Your task to perform on an android device: see sites visited before in the chrome app Image 0: 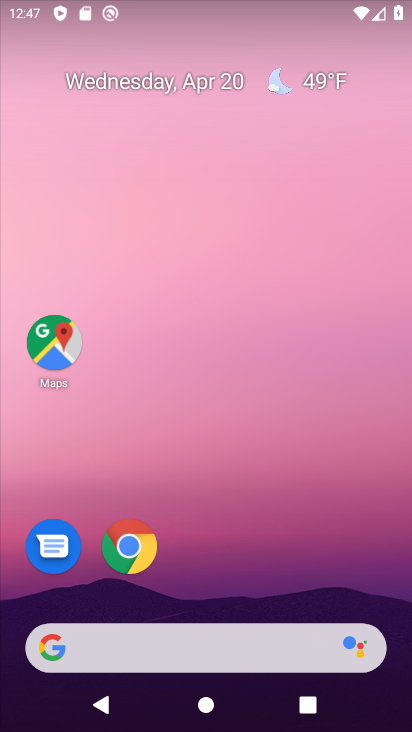
Step 0: click (124, 549)
Your task to perform on an android device: see sites visited before in the chrome app Image 1: 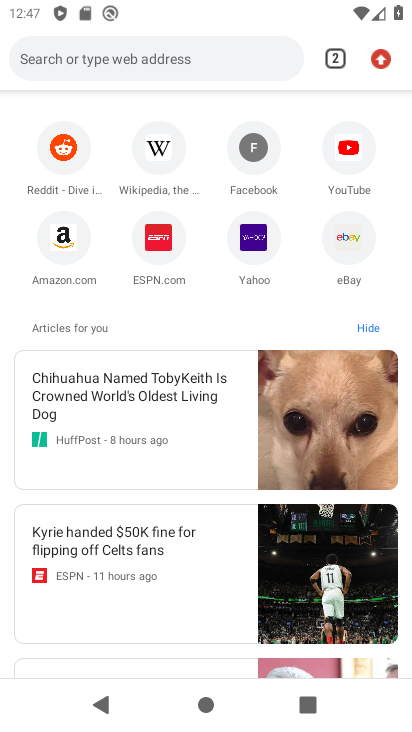
Step 1: click (377, 59)
Your task to perform on an android device: see sites visited before in the chrome app Image 2: 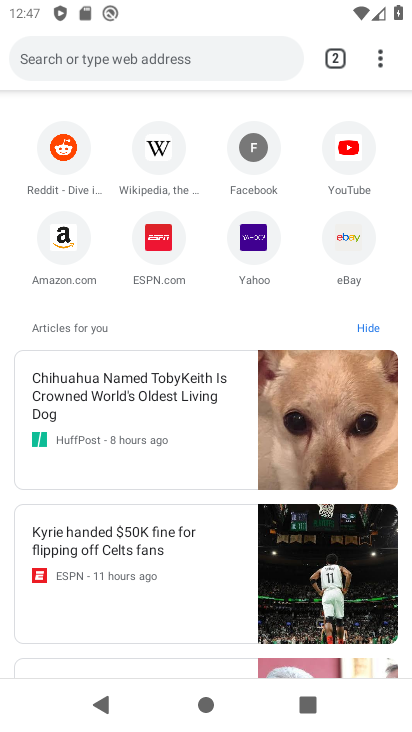
Step 2: task complete